Your task to perform on an android device: Open the calendar and show me this week's events? Image 0: 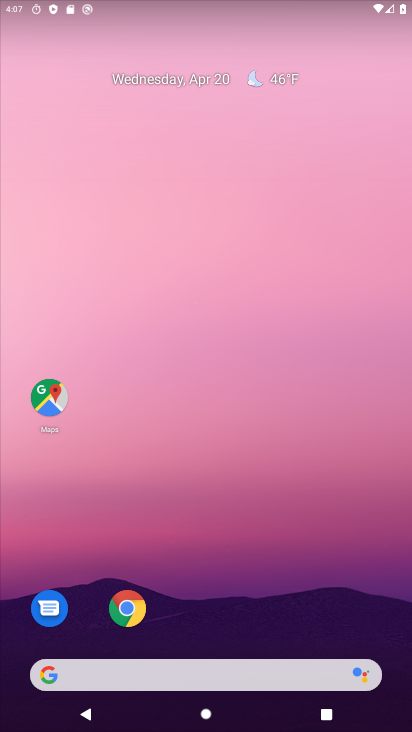
Step 0: drag from (162, 647) to (176, 9)
Your task to perform on an android device: Open the calendar and show me this week's events? Image 1: 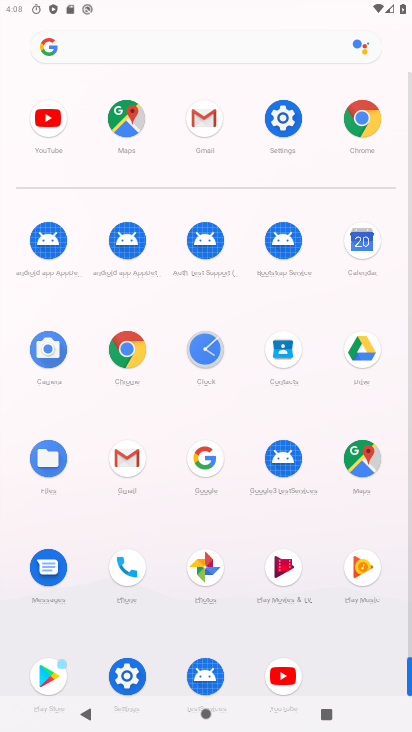
Step 1: click (367, 234)
Your task to perform on an android device: Open the calendar and show me this week's events? Image 2: 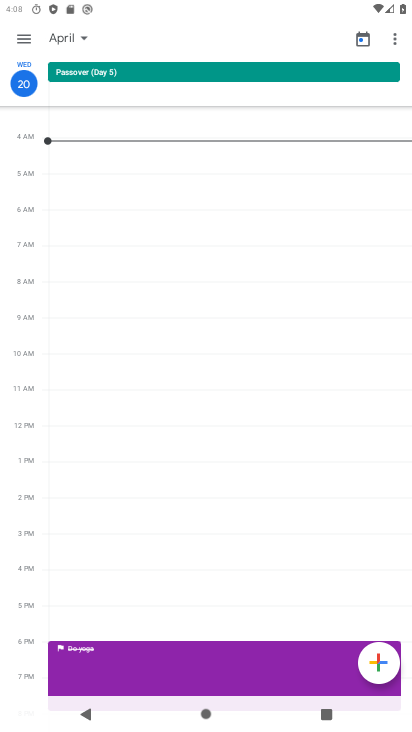
Step 2: click (20, 35)
Your task to perform on an android device: Open the calendar and show me this week's events? Image 3: 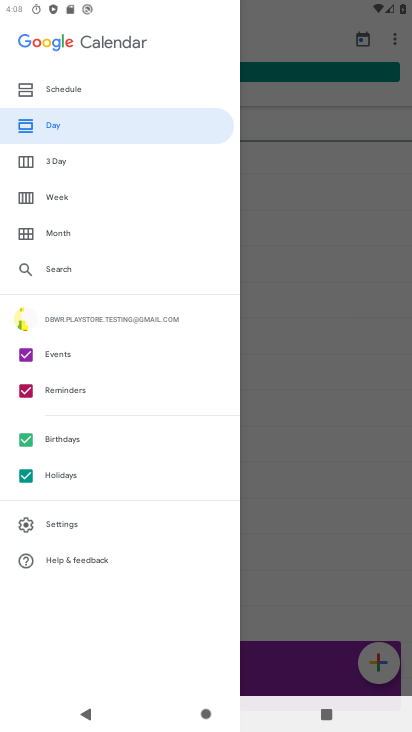
Step 3: click (66, 190)
Your task to perform on an android device: Open the calendar and show me this week's events? Image 4: 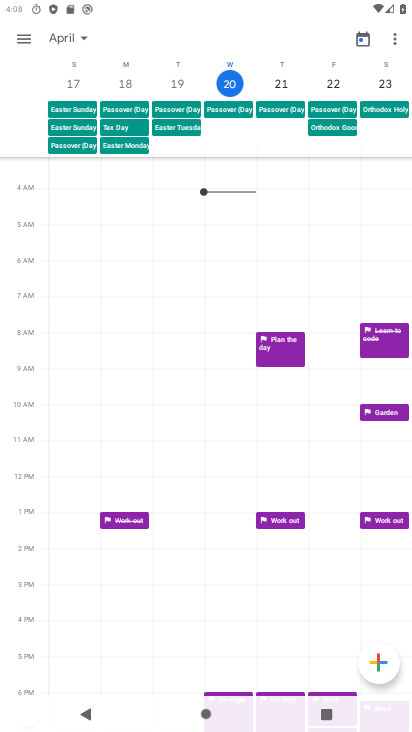
Step 4: task complete